Your task to perform on an android device: What is the recent news? Image 0: 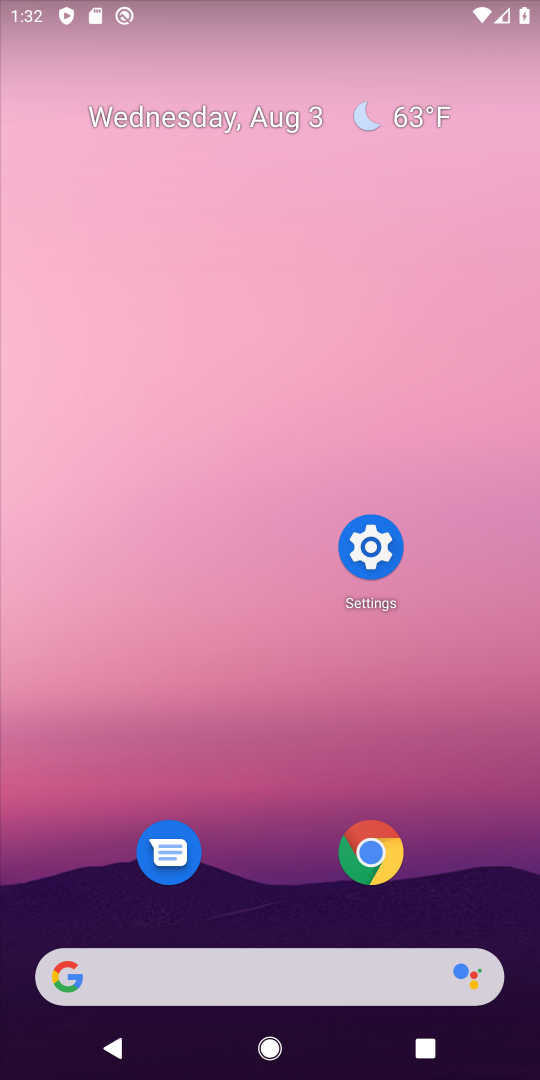
Step 0: press home button
Your task to perform on an android device: What is the recent news? Image 1: 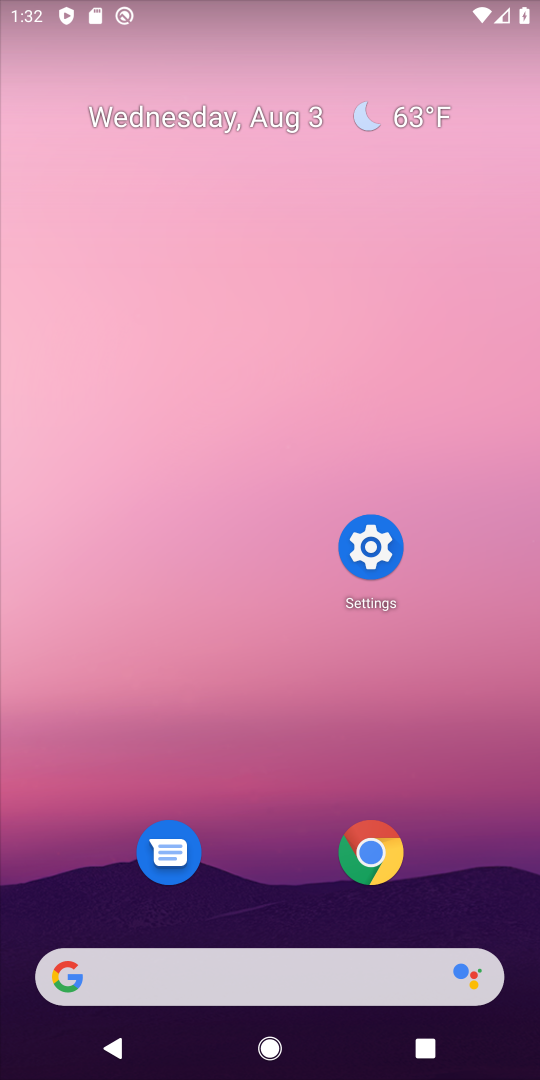
Step 1: click (159, 970)
Your task to perform on an android device: What is the recent news? Image 2: 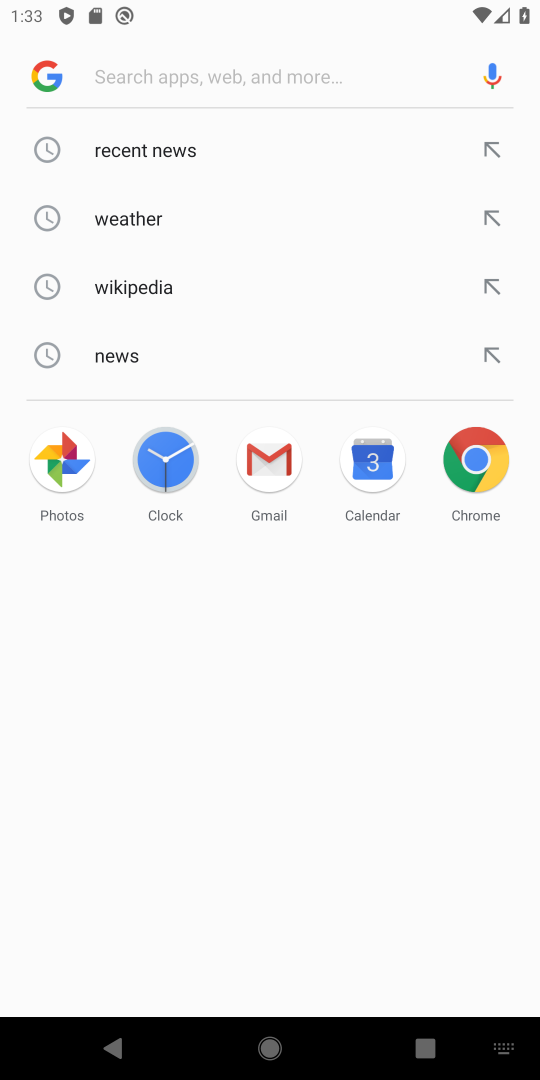
Step 2: click (168, 140)
Your task to perform on an android device: What is the recent news? Image 3: 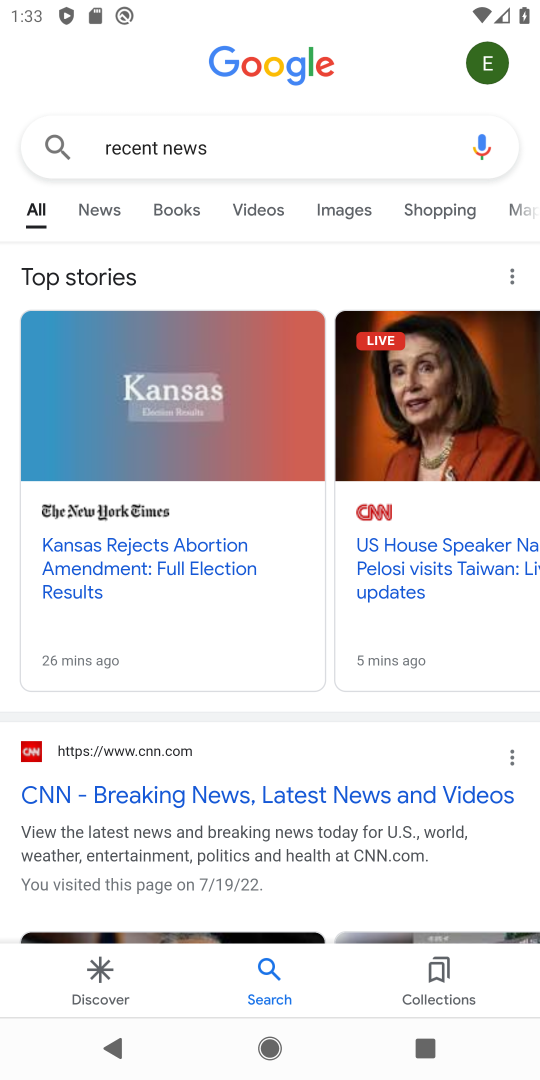
Step 3: click (116, 212)
Your task to perform on an android device: What is the recent news? Image 4: 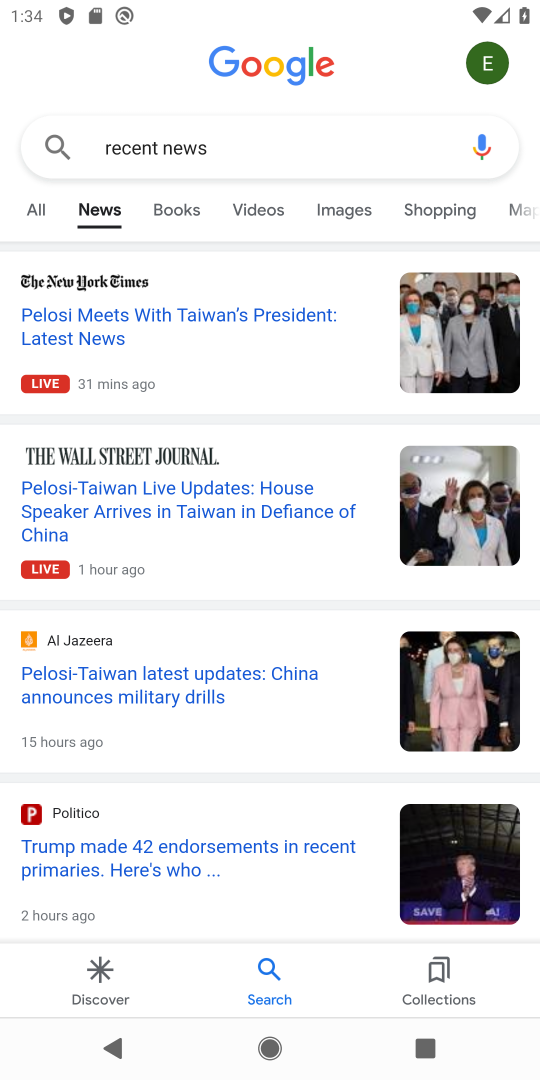
Step 4: task complete